Your task to perform on an android device: toggle pop-ups in chrome Image 0: 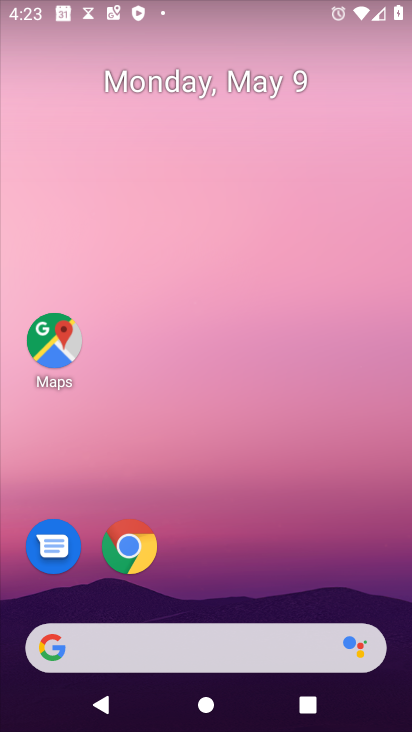
Step 0: drag from (266, 566) to (226, 132)
Your task to perform on an android device: toggle pop-ups in chrome Image 1: 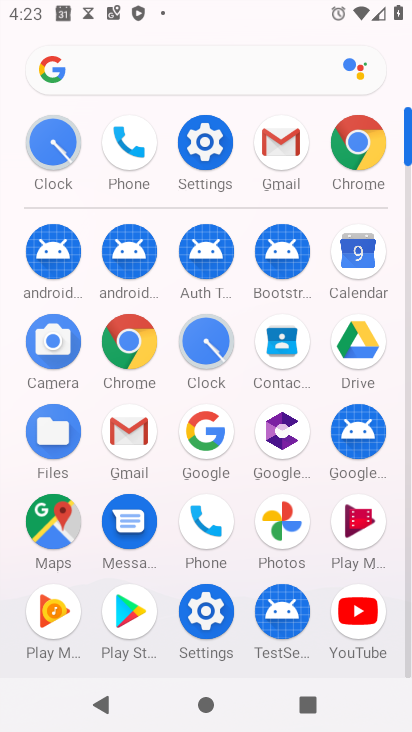
Step 1: click (360, 149)
Your task to perform on an android device: toggle pop-ups in chrome Image 2: 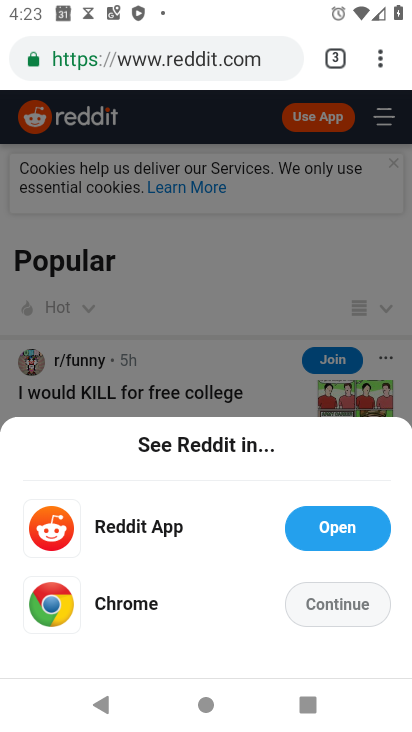
Step 2: drag from (384, 64) to (213, 577)
Your task to perform on an android device: toggle pop-ups in chrome Image 3: 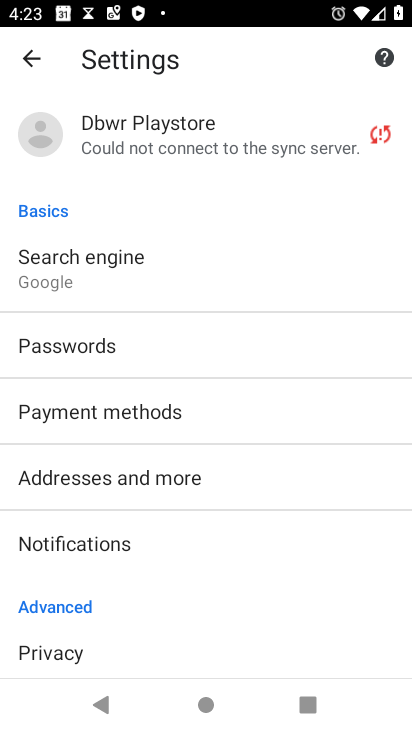
Step 3: drag from (130, 633) to (87, 290)
Your task to perform on an android device: toggle pop-ups in chrome Image 4: 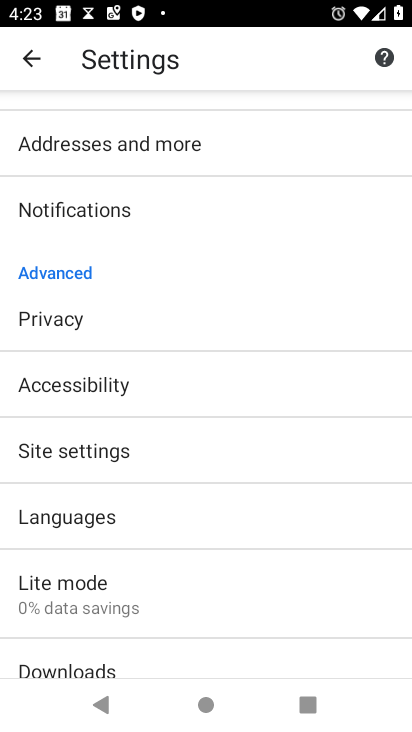
Step 4: click (66, 464)
Your task to perform on an android device: toggle pop-ups in chrome Image 5: 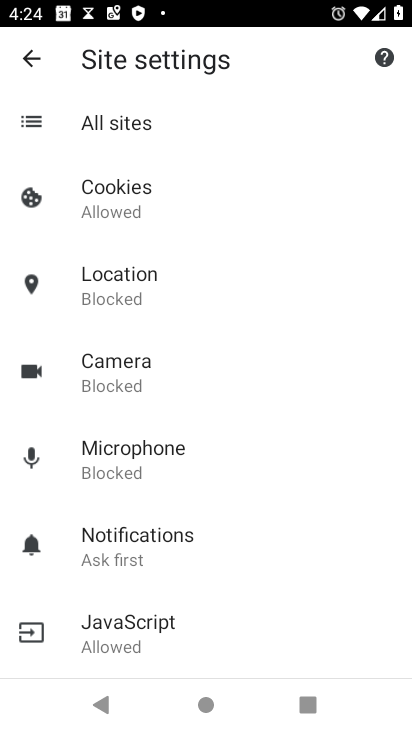
Step 5: drag from (169, 582) to (163, 242)
Your task to perform on an android device: toggle pop-ups in chrome Image 6: 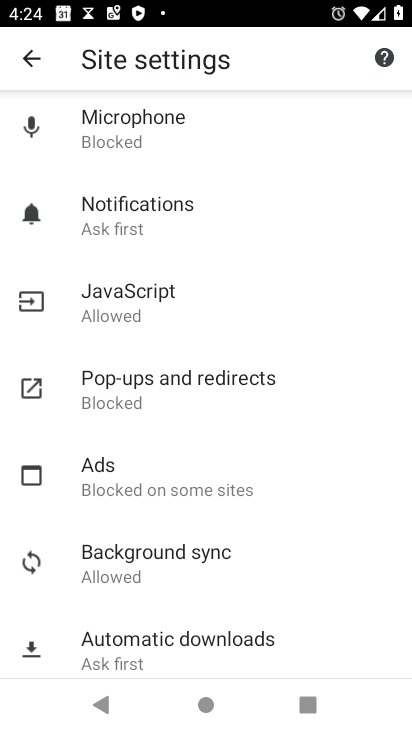
Step 6: click (106, 381)
Your task to perform on an android device: toggle pop-ups in chrome Image 7: 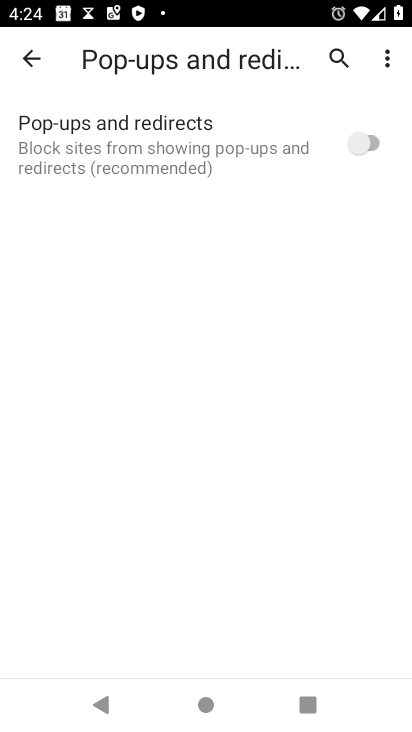
Step 7: click (341, 143)
Your task to perform on an android device: toggle pop-ups in chrome Image 8: 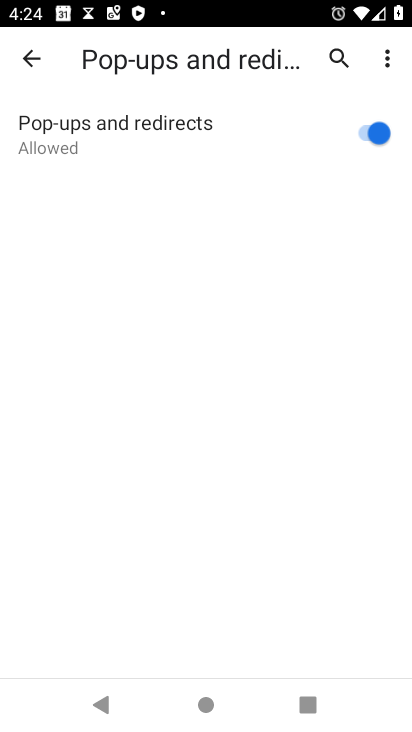
Step 8: task complete